Your task to perform on an android device: Open settings Image 0: 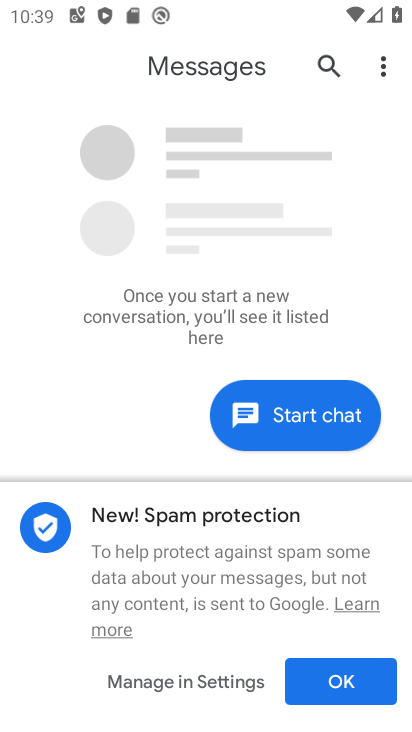
Step 0: press home button
Your task to perform on an android device: Open settings Image 1: 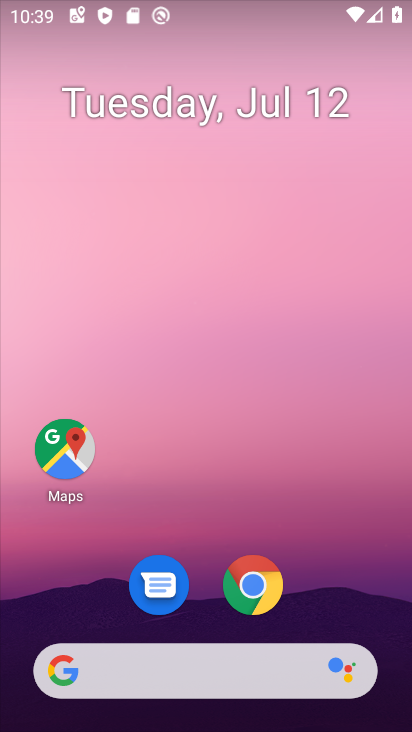
Step 1: drag from (318, 587) to (327, 25)
Your task to perform on an android device: Open settings Image 2: 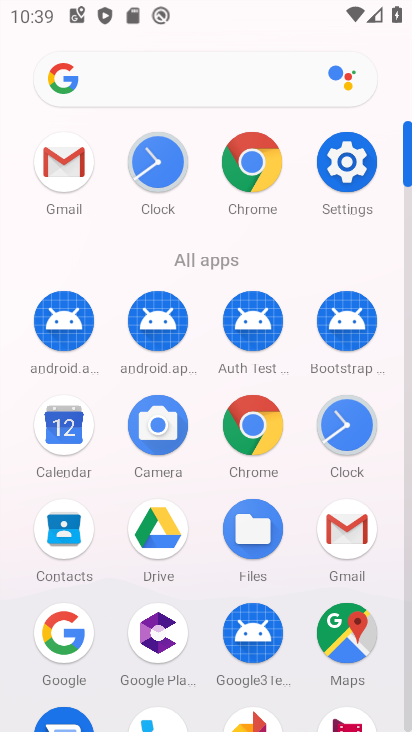
Step 2: click (350, 161)
Your task to perform on an android device: Open settings Image 3: 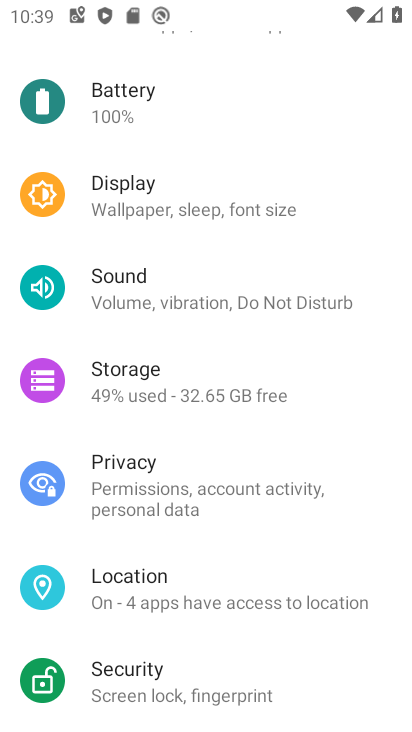
Step 3: task complete